Your task to perform on an android device: Open Wikipedia Image 0: 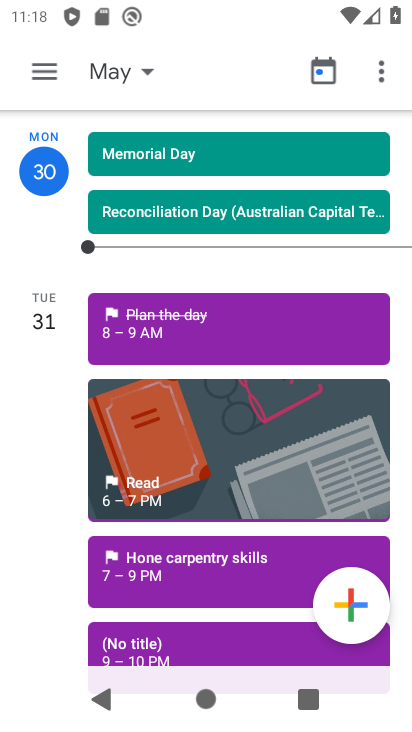
Step 0: press home button
Your task to perform on an android device: Open Wikipedia Image 1: 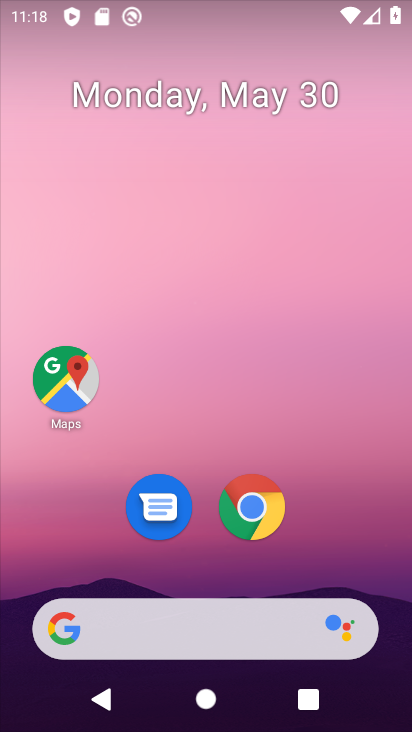
Step 1: click (243, 628)
Your task to perform on an android device: Open Wikipedia Image 2: 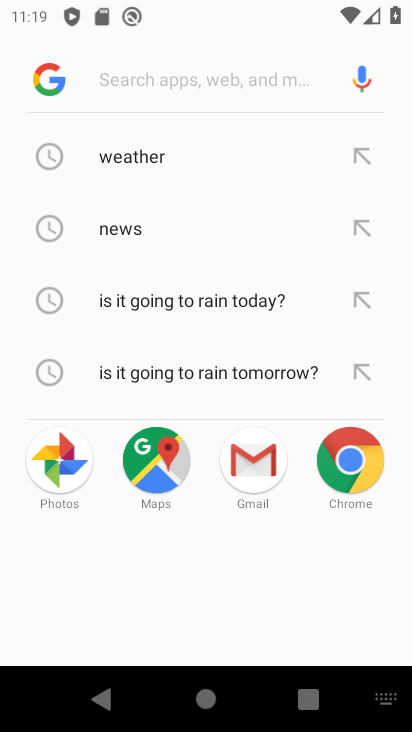
Step 2: type "Wikipedia"
Your task to perform on an android device: Open Wikipedia Image 3: 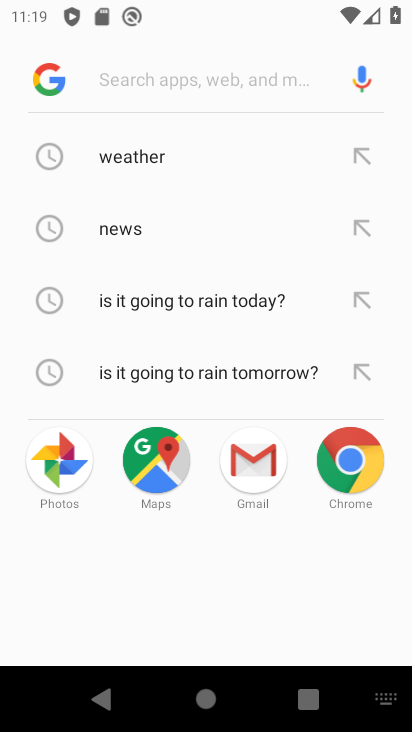
Step 3: click (172, 64)
Your task to perform on an android device: Open Wikipedia Image 4: 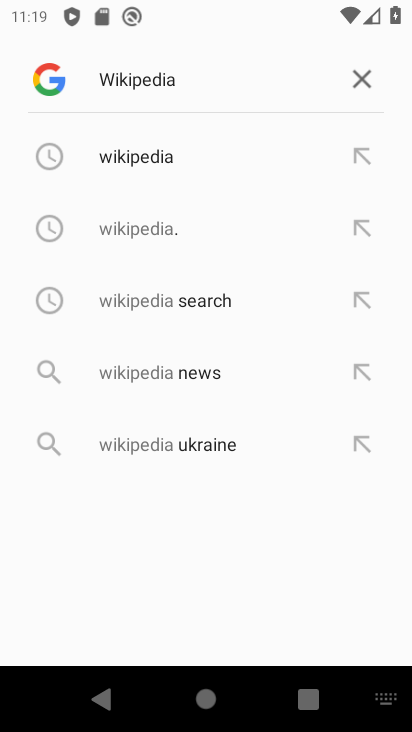
Step 4: click (167, 72)
Your task to perform on an android device: Open Wikipedia Image 5: 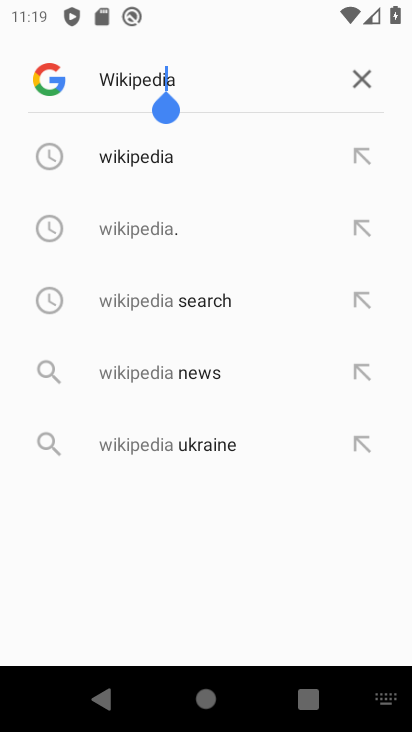
Step 5: click (150, 149)
Your task to perform on an android device: Open Wikipedia Image 6: 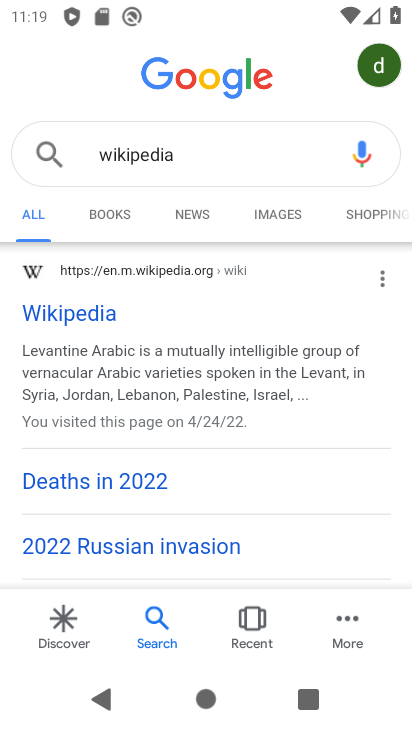
Step 6: click (81, 316)
Your task to perform on an android device: Open Wikipedia Image 7: 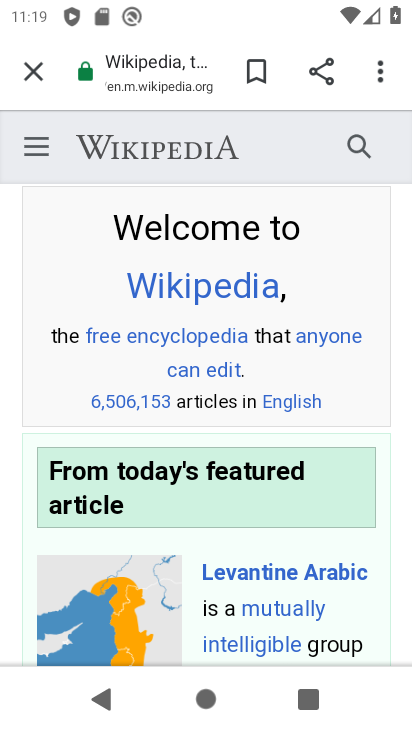
Step 7: task complete